Your task to perform on an android device: Open Google Chrome and open the bookmarks view Image 0: 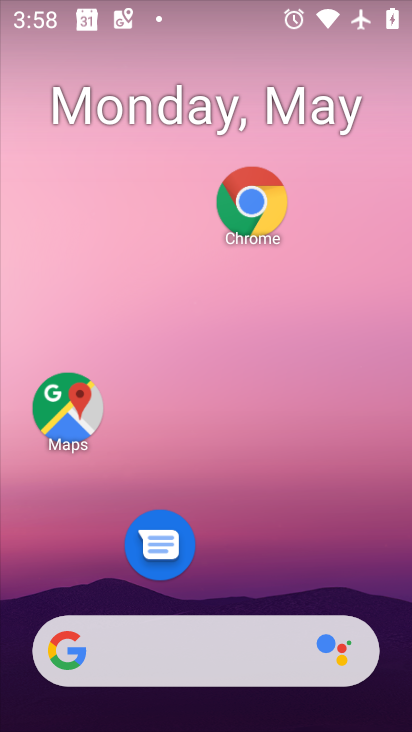
Step 0: click (238, 232)
Your task to perform on an android device: Open Google Chrome and open the bookmarks view Image 1: 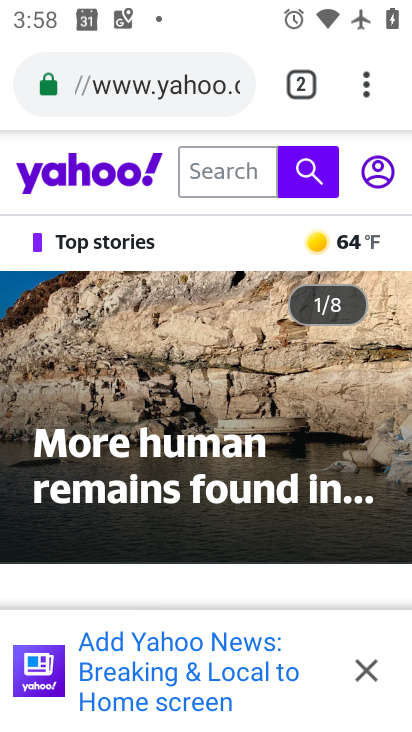
Step 1: drag from (359, 84) to (109, 323)
Your task to perform on an android device: Open Google Chrome and open the bookmarks view Image 2: 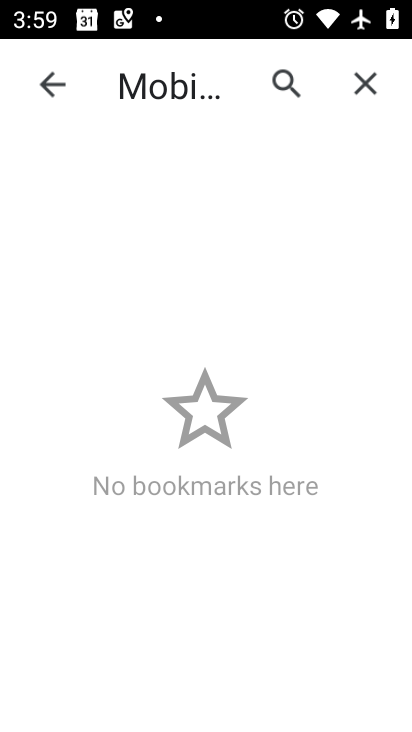
Step 2: press home button
Your task to perform on an android device: Open Google Chrome and open the bookmarks view Image 3: 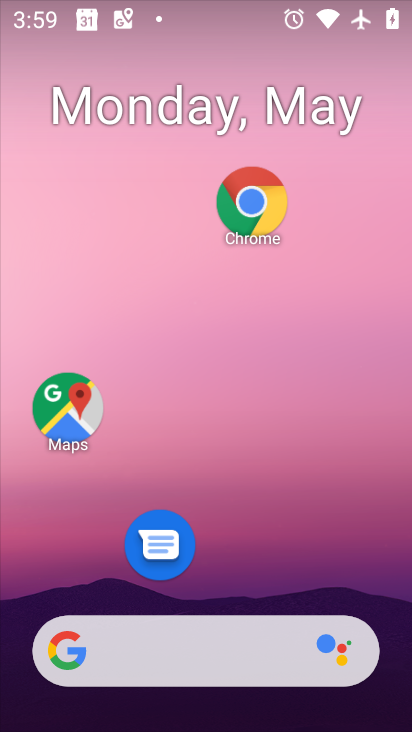
Step 3: click (260, 216)
Your task to perform on an android device: Open Google Chrome and open the bookmarks view Image 4: 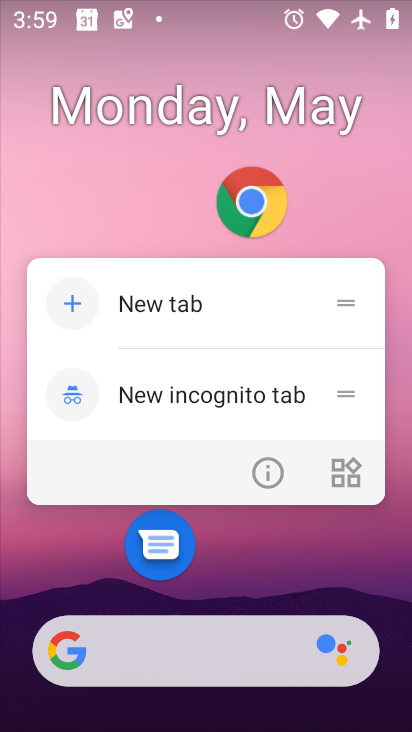
Step 4: click (259, 217)
Your task to perform on an android device: Open Google Chrome and open the bookmarks view Image 5: 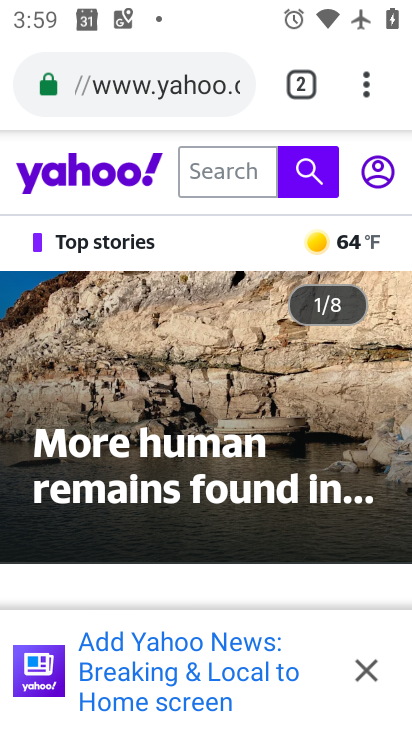
Step 5: task complete